Your task to perform on an android device: turn off translation in the chrome app Image 0: 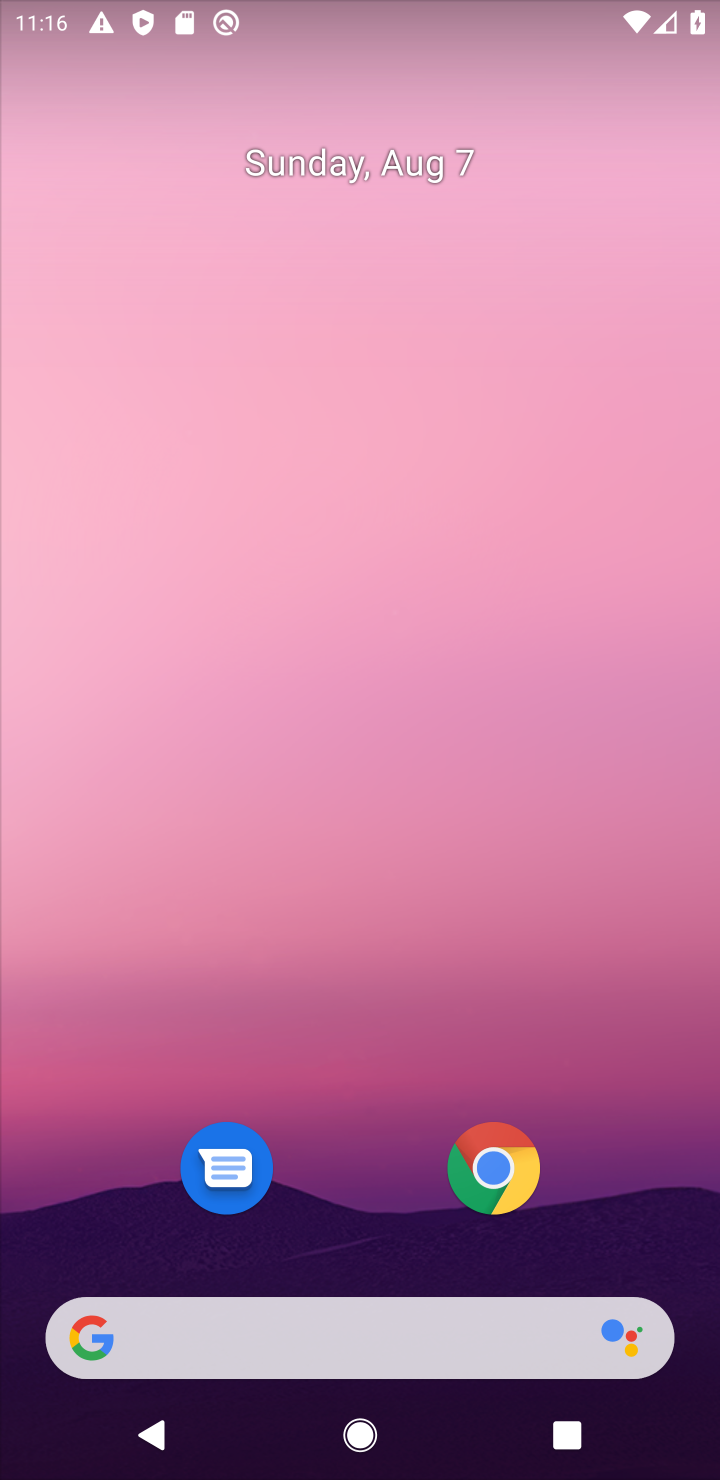
Step 0: click (492, 1184)
Your task to perform on an android device: turn off translation in the chrome app Image 1: 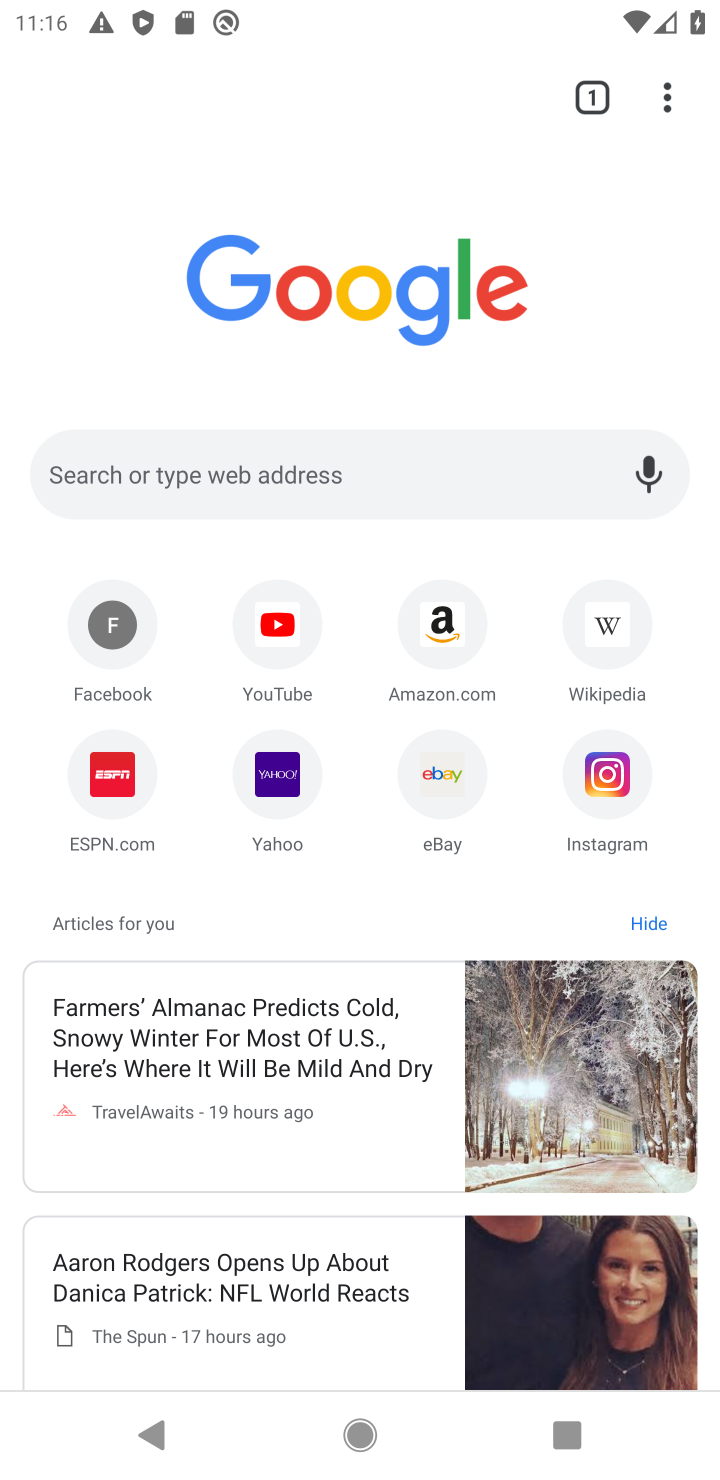
Step 1: click (669, 93)
Your task to perform on an android device: turn off translation in the chrome app Image 2: 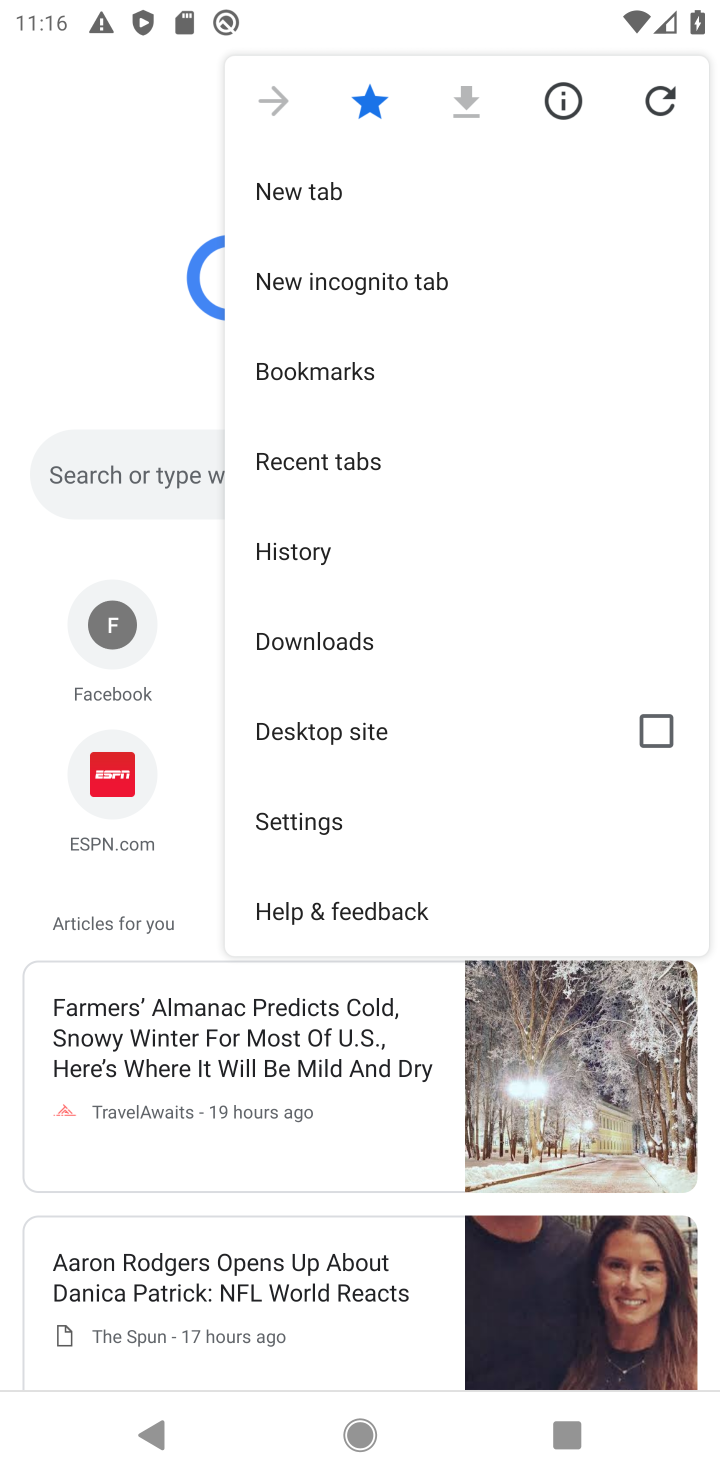
Step 2: click (318, 817)
Your task to perform on an android device: turn off translation in the chrome app Image 3: 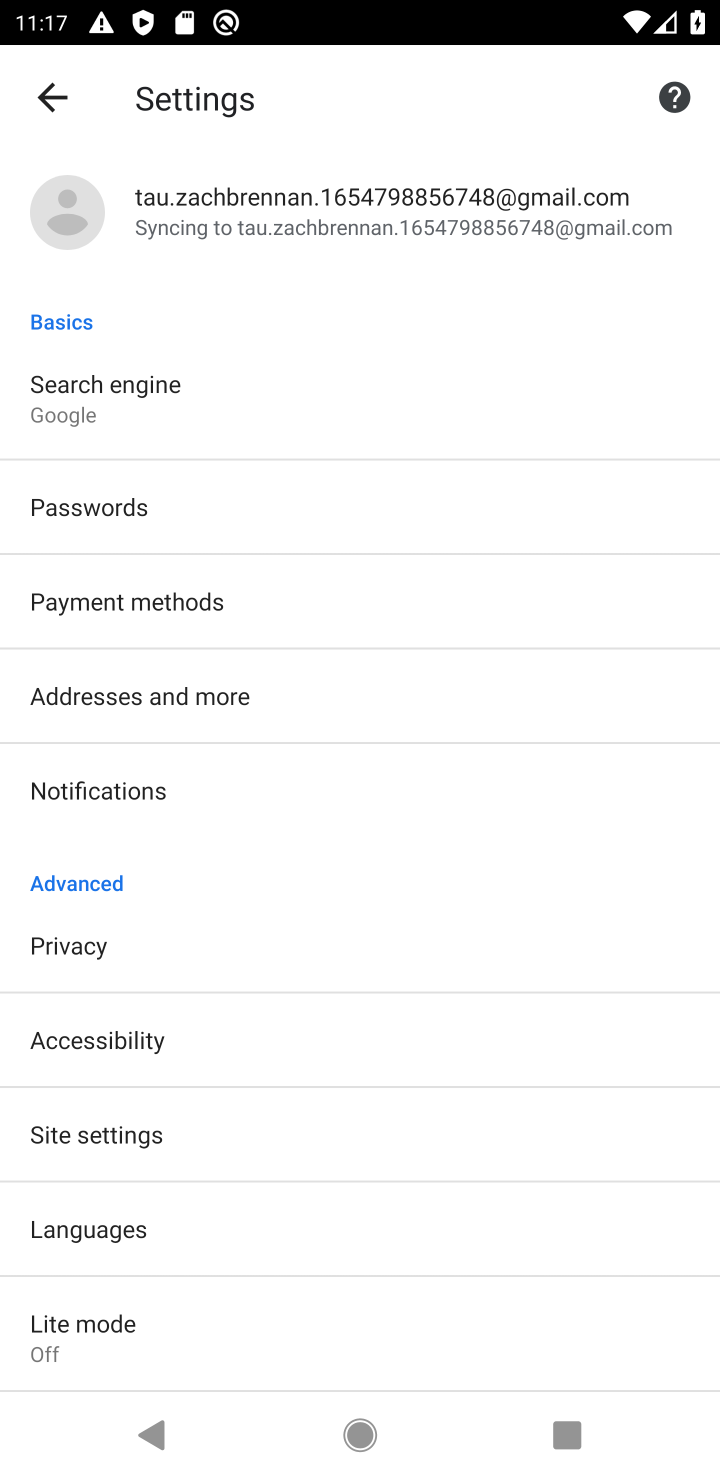
Step 3: click (64, 1217)
Your task to perform on an android device: turn off translation in the chrome app Image 4: 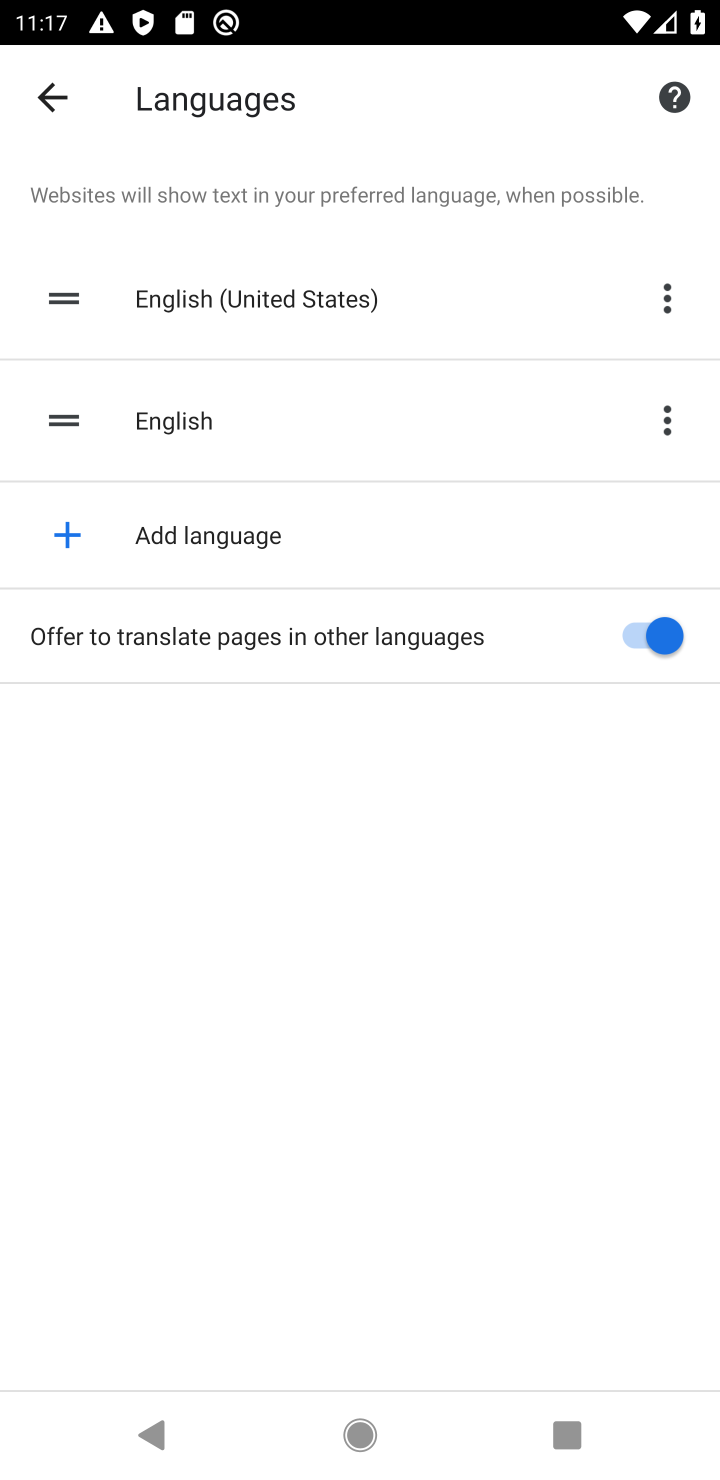
Step 4: task complete